Your task to perform on an android device: turn on location history Image 0: 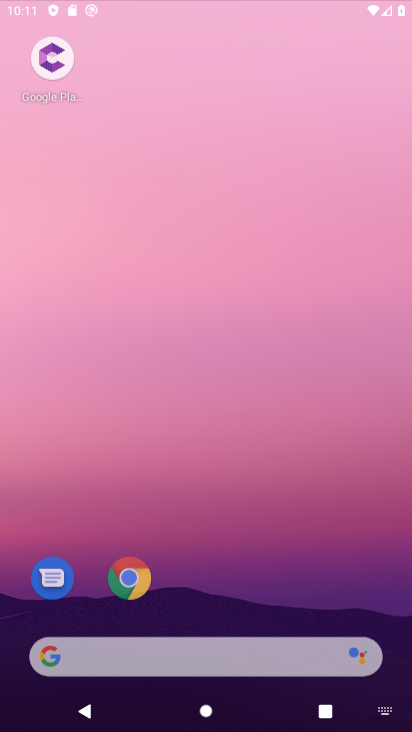
Step 0: click (361, 151)
Your task to perform on an android device: turn on location history Image 1: 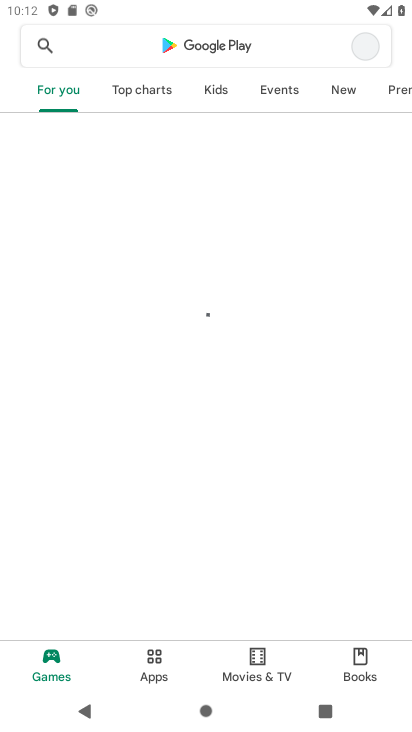
Step 1: press home button
Your task to perform on an android device: turn on location history Image 2: 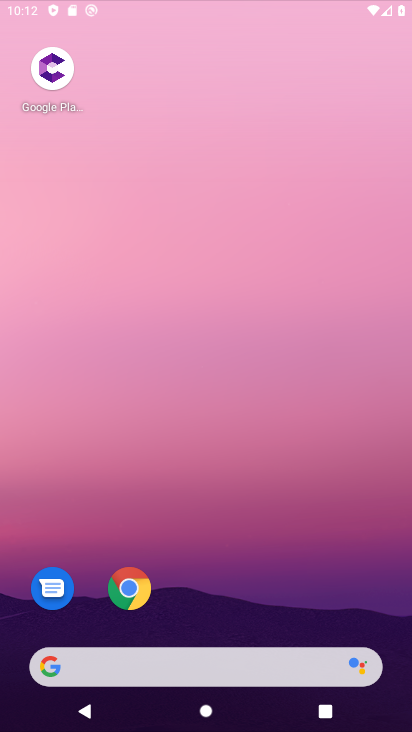
Step 2: drag from (336, 513) to (286, 144)
Your task to perform on an android device: turn on location history Image 3: 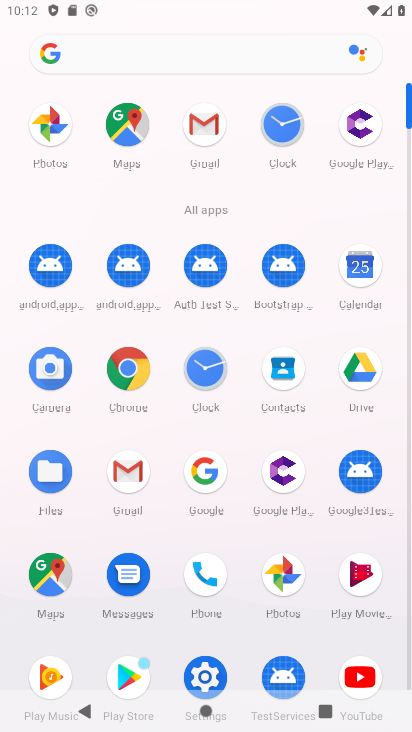
Step 3: click (207, 668)
Your task to perform on an android device: turn on location history Image 4: 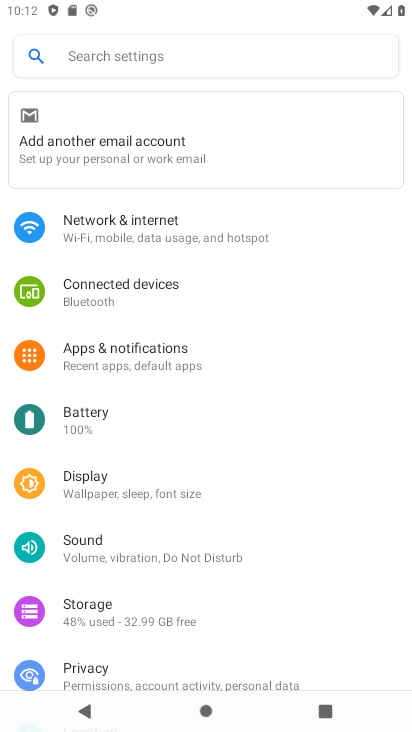
Step 4: drag from (213, 642) to (288, 161)
Your task to perform on an android device: turn on location history Image 5: 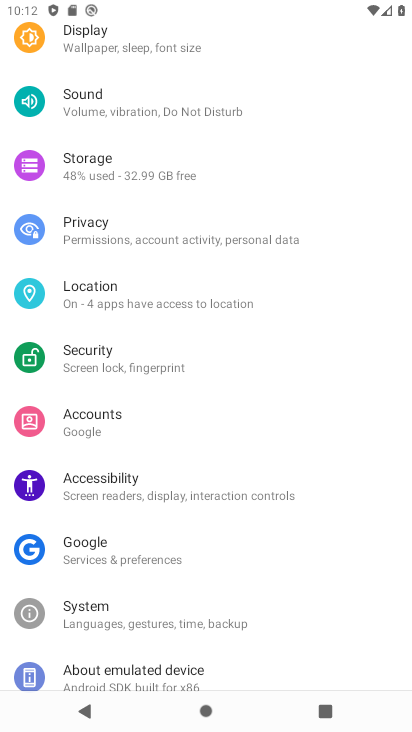
Step 5: click (203, 293)
Your task to perform on an android device: turn on location history Image 6: 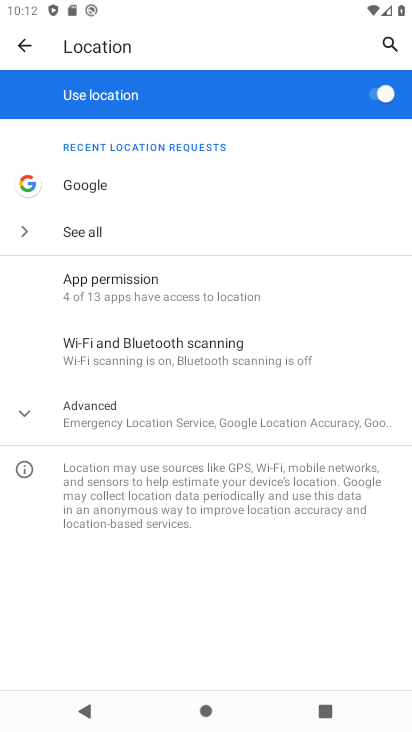
Step 6: click (213, 417)
Your task to perform on an android device: turn on location history Image 7: 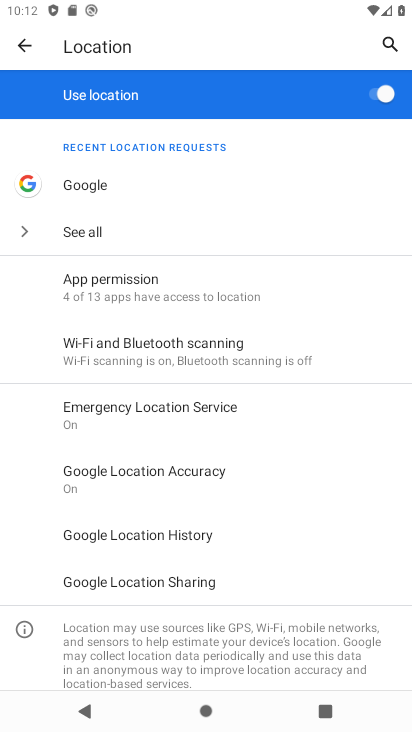
Step 7: click (188, 534)
Your task to perform on an android device: turn on location history Image 8: 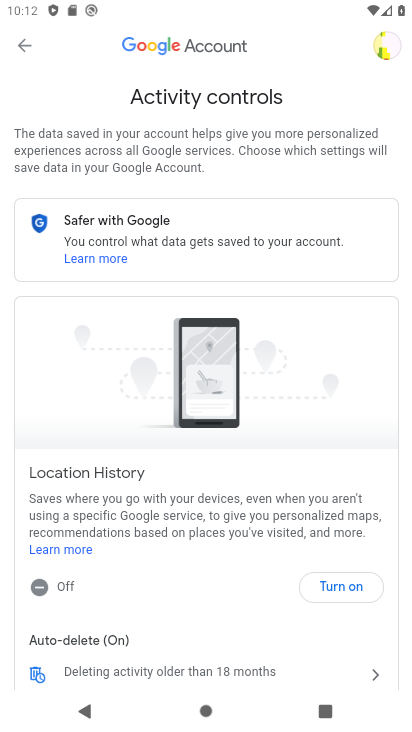
Step 8: click (339, 588)
Your task to perform on an android device: turn on location history Image 9: 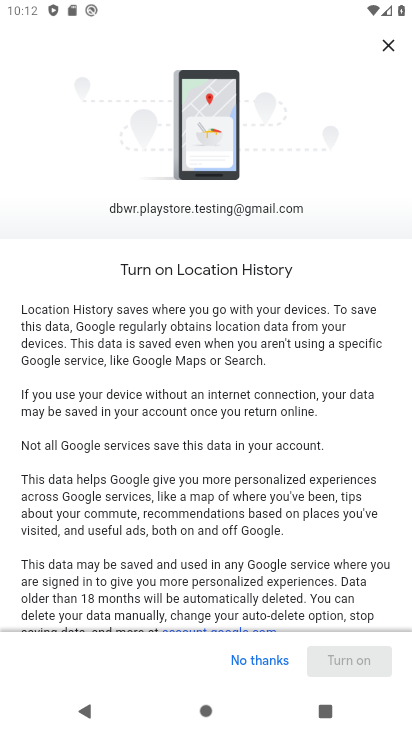
Step 9: drag from (338, 582) to (321, 188)
Your task to perform on an android device: turn on location history Image 10: 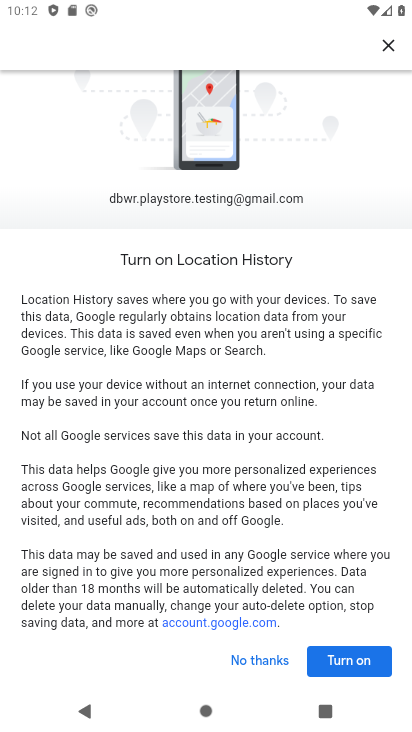
Step 10: click (353, 660)
Your task to perform on an android device: turn on location history Image 11: 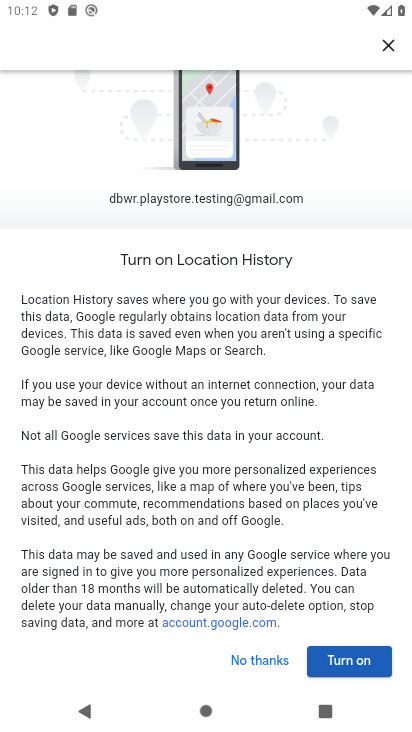
Step 11: click (354, 665)
Your task to perform on an android device: turn on location history Image 12: 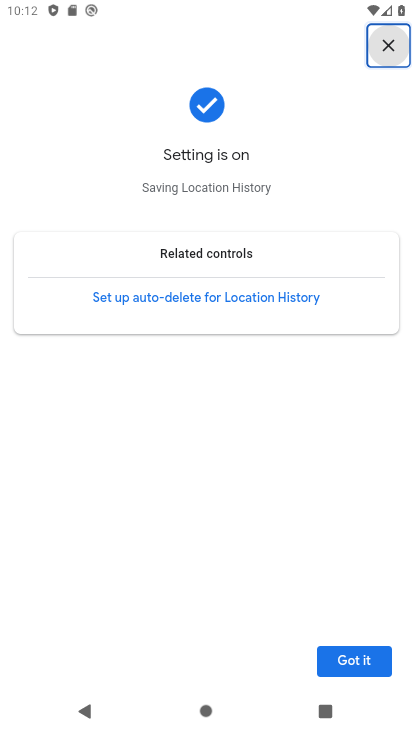
Step 12: task complete